Your task to perform on an android device: turn off location history Image 0: 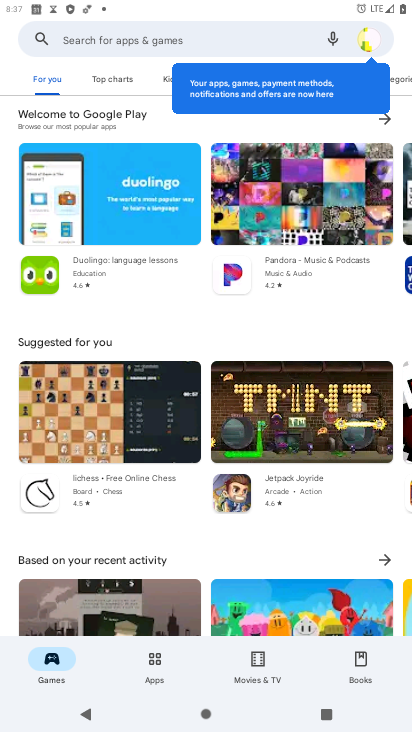
Step 0: press home button
Your task to perform on an android device: turn off location history Image 1: 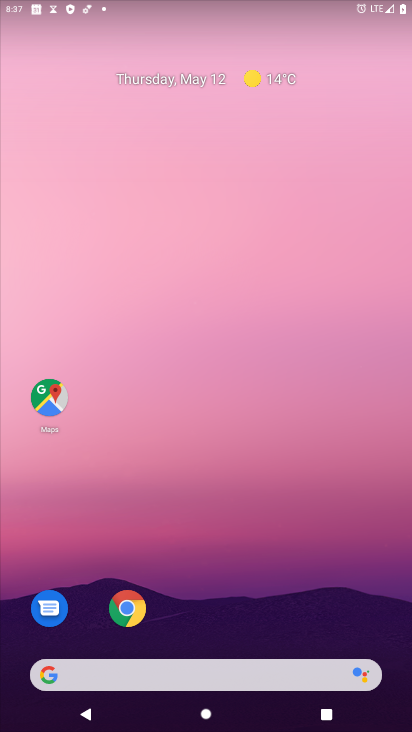
Step 1: drag from (210, 662) to (232, 214)
Your task to perform on an android device: turn off location history Image 2: 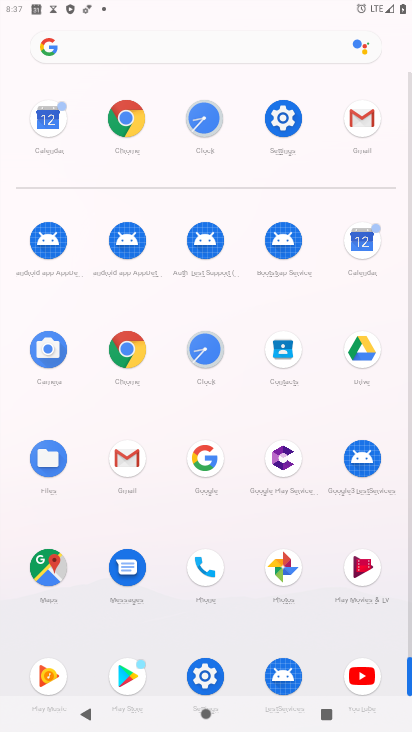
Step 2: click (274, 125)
Your task to perform on an android device: turn off location history Image 3: 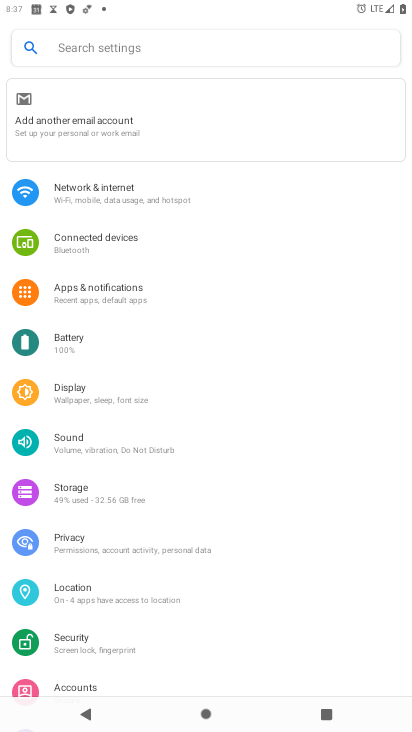
Step 3: click (62, 584)
Your task to perform on an android device: turn off location history Image 4: 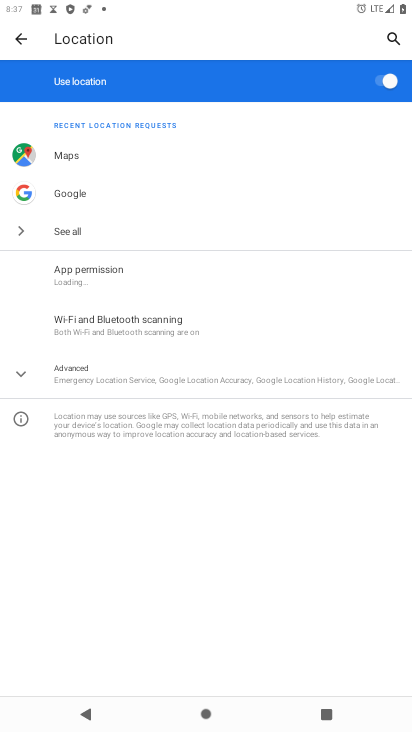
Step 4: click (69, 366)
Your task to perform on an android device: turn off location history Image 5: 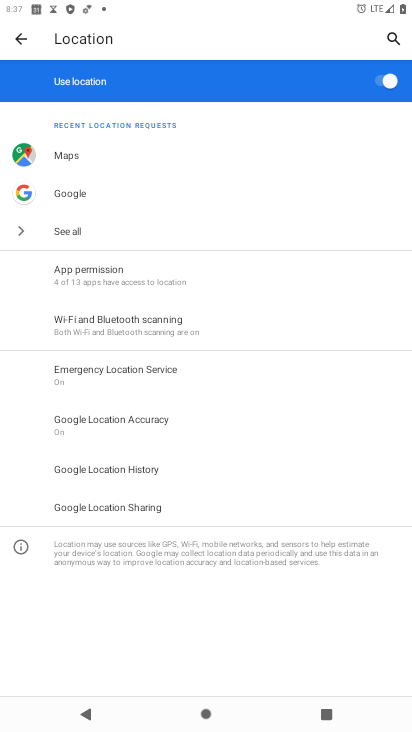
Step 5: click (88, 471)
Your task to perform on an android device: turn off location history Image 6: 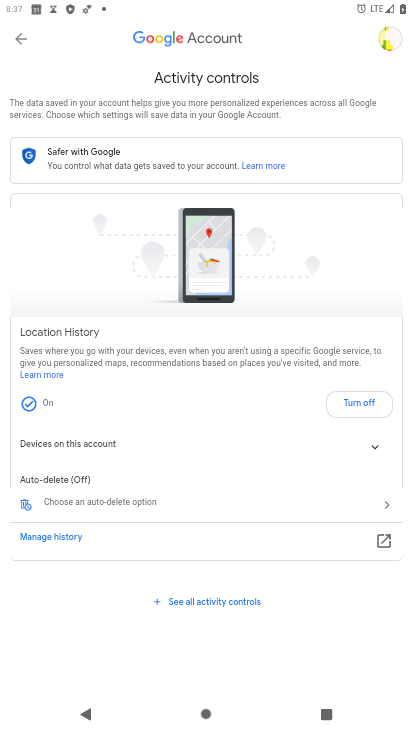
Step 6: click (360, 408)
Your task to perform on an android device: turn off location history Image 7: 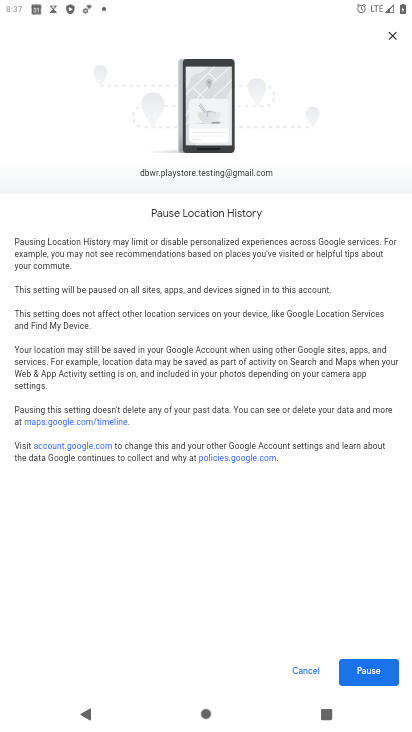
Step 7: click (372, 672)
Your task to perform on an android device: turn off location history Image 8: 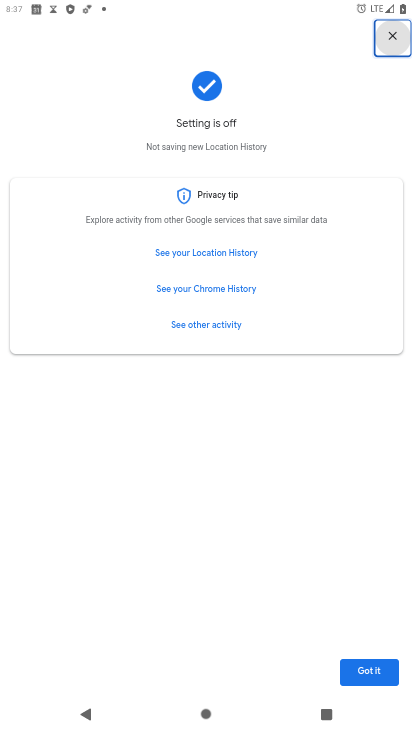
Step 8: click (381, 675)
Your task to perform on an android device: turn off location history Image 9: 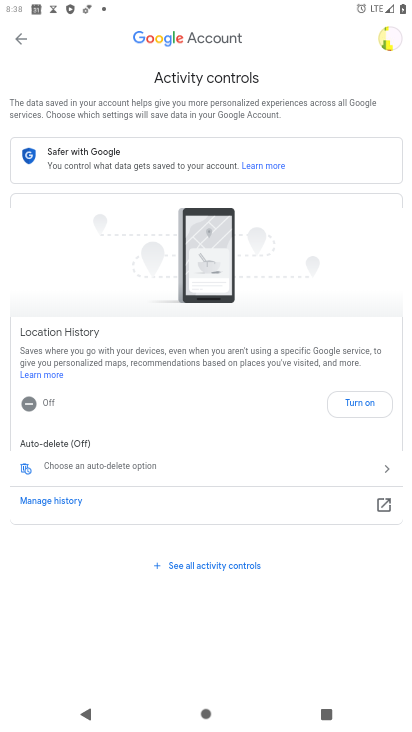
Step 9: task complete